Your task to perform on an android device: Empty the shopping cart on walmart. Add energizer triple a to the cart on walmart Image 0: 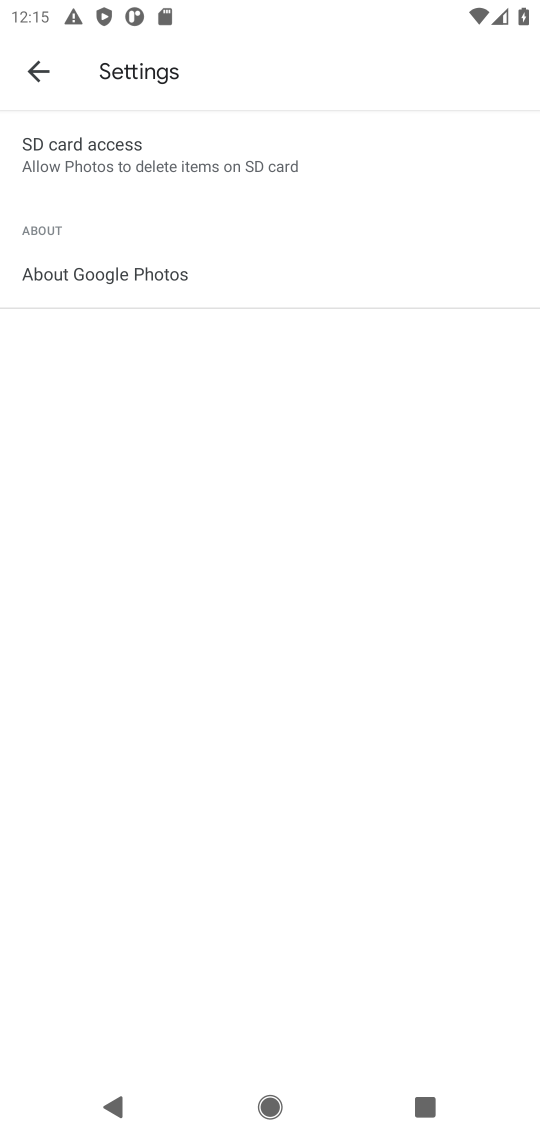
Step 0: press home button
Your task to perform on an android device: Empty the shopping cart on walmart. Add energizer triple a to the cart on walmart Image 1: 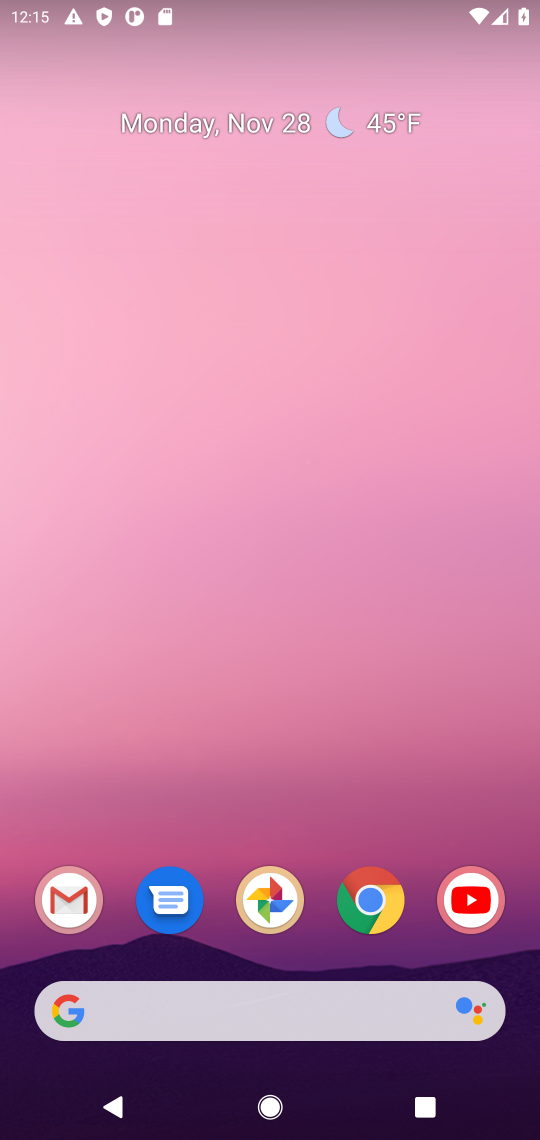
Step 1: click (389, 905)
Your task to perform on an android device: Empty the shopping cart on walmart. Add energizer triple a to the cart on walmart Image 2: 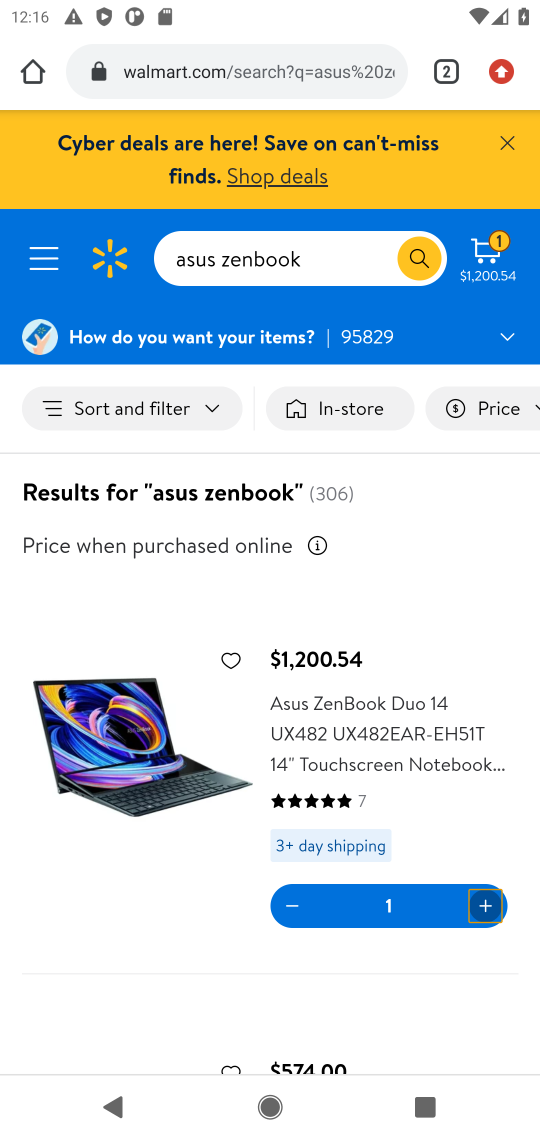
Step 2: click (496, 252)
Your task to perform on an android device: Empty the shopping cart on walmart. Add energizer triple a to the cart on walmart Image 3: 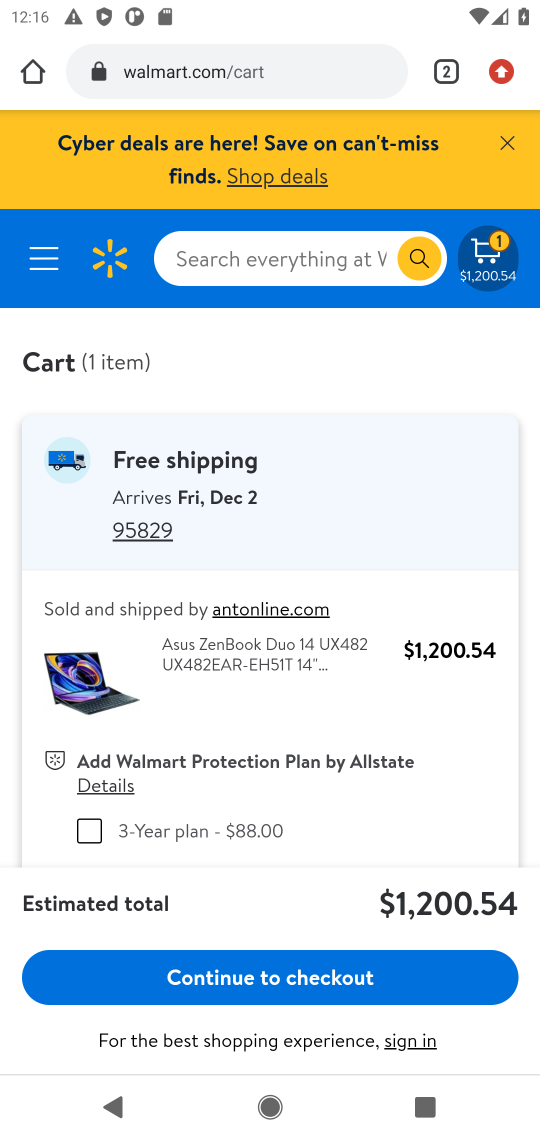
Step 3: drag from (263, 846) to (319, 395)
Your task to perform on an android device: Empty the shopping cart on walmart. Add energizer triple a to the cart on walmart Image 4: 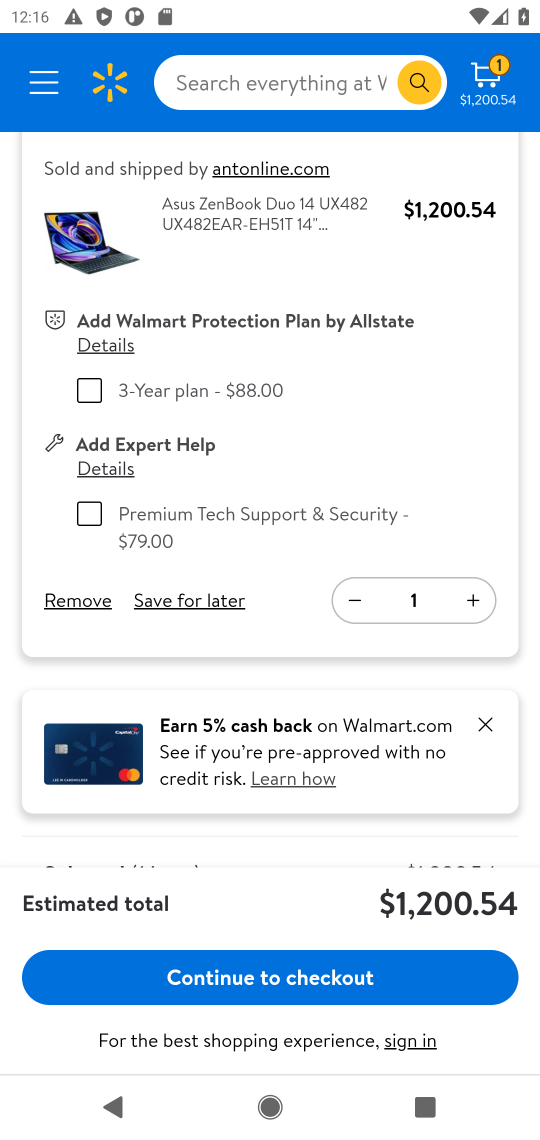
Step 4: click (59, 602)
Your task to perform on an android device: Empty the shopping cart on walmart. Add energizer triple a to the cart on walmart Image 5: 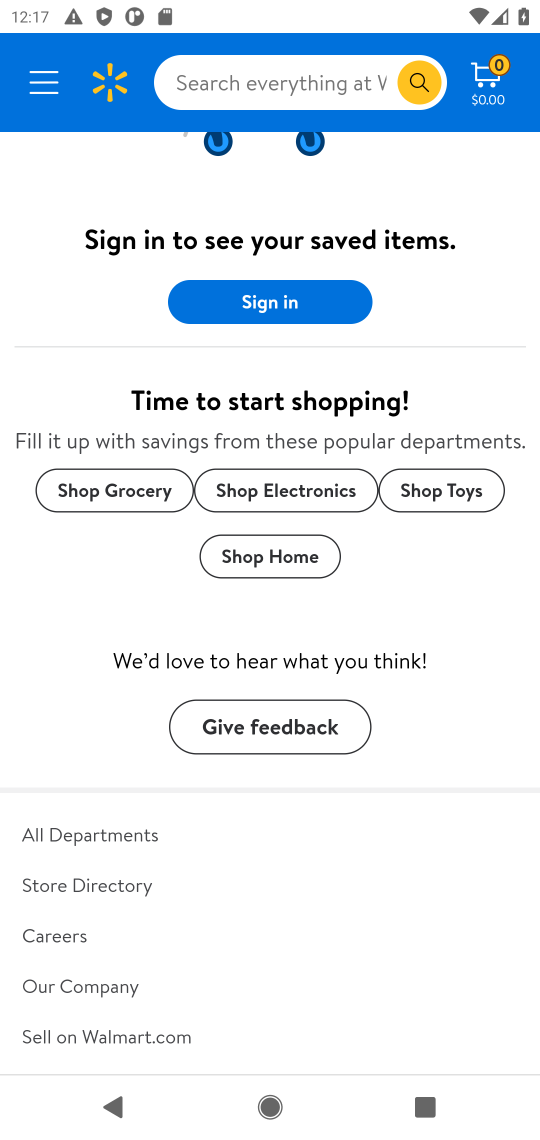
Step 5: click (248, 85)
Your task to perform on an android device: Empty the shopping cart on walmart. Add energizer triple a to the cart on walmart Image 6: 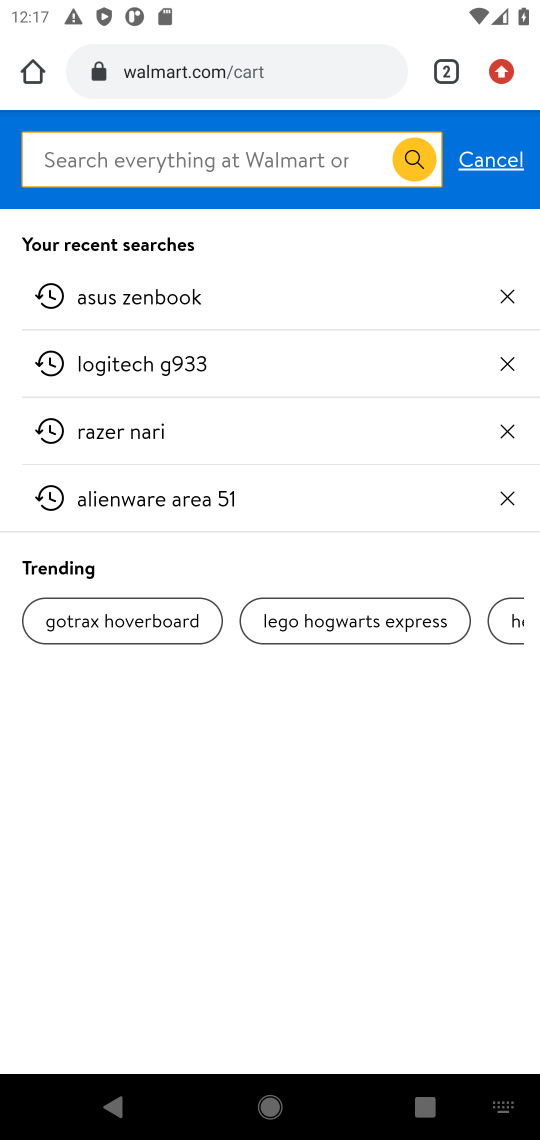
Step 6: type "energizer triple a"
Your task to perform on an android device: Empty the shopping cart on walmart. Add energizer triple a to the cart on walmart Image 7: 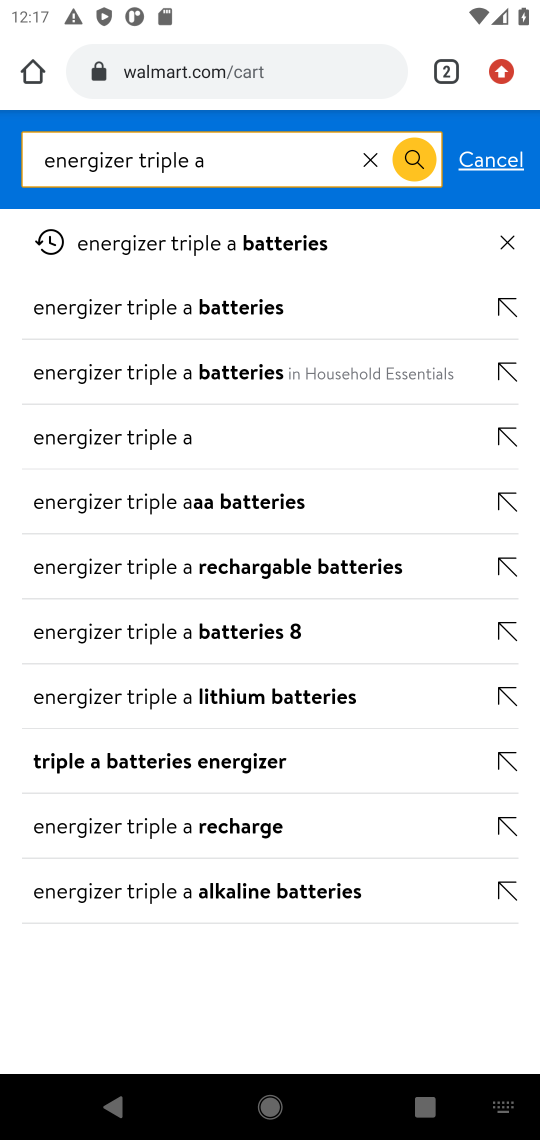
Step 7: click (157, 251)
Your task to perform on an android device: Empty the shopping cart on walmart. Add energizer triple a to the cart on walmart Image 8: 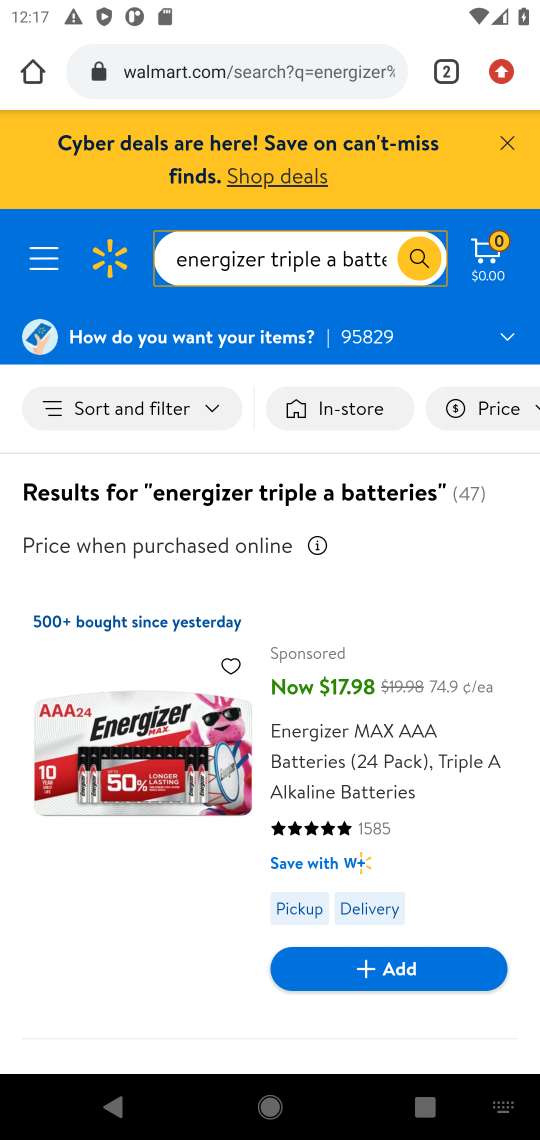
Step 8: drag from (253, 587) to (285, 306)
Your task to perform on an android device: Empty the shopping cart on walmart. Add energizer triple a to the cart on walmart Image 9: 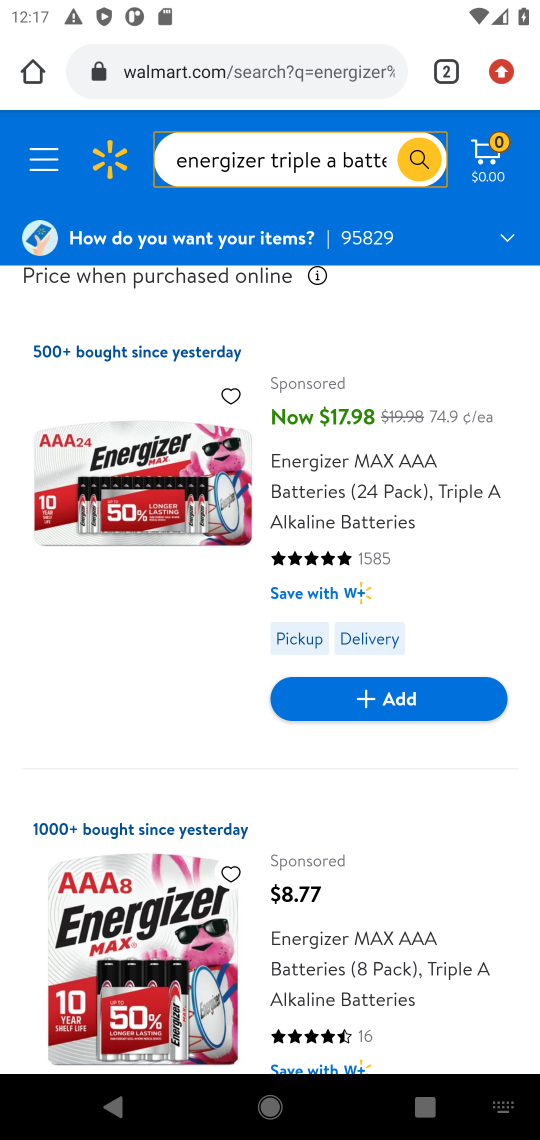
Step 9: click (380, 697)
Your task to perform on an android device: Empty the shopping cart on walmart. Add energizer triple a to the cart on walmart Image 10: 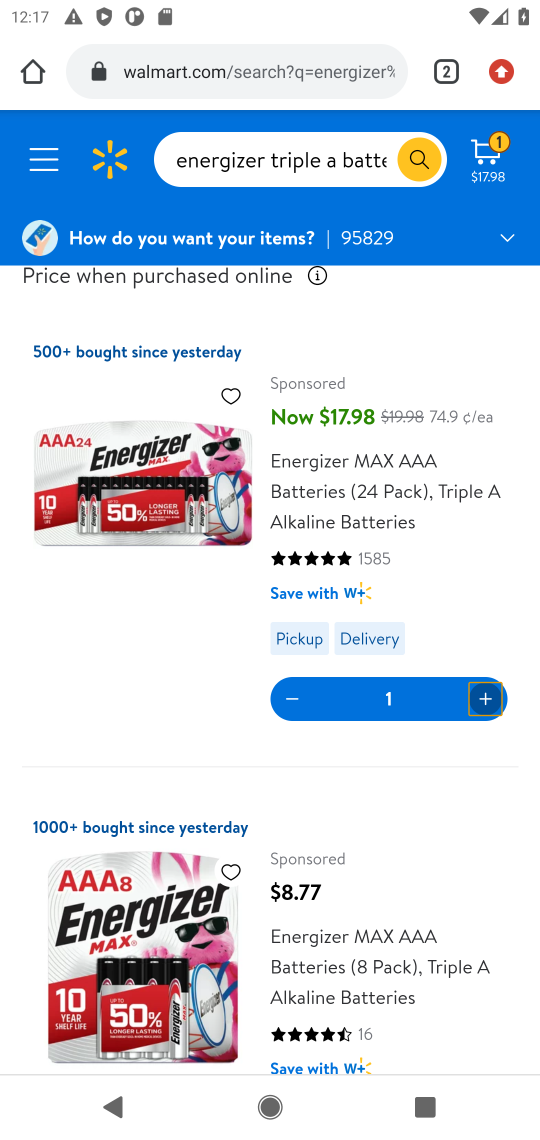
Step 10: task complete